Your task to perform on an android device: Add "razer thresher" to the cart on target Image 0: 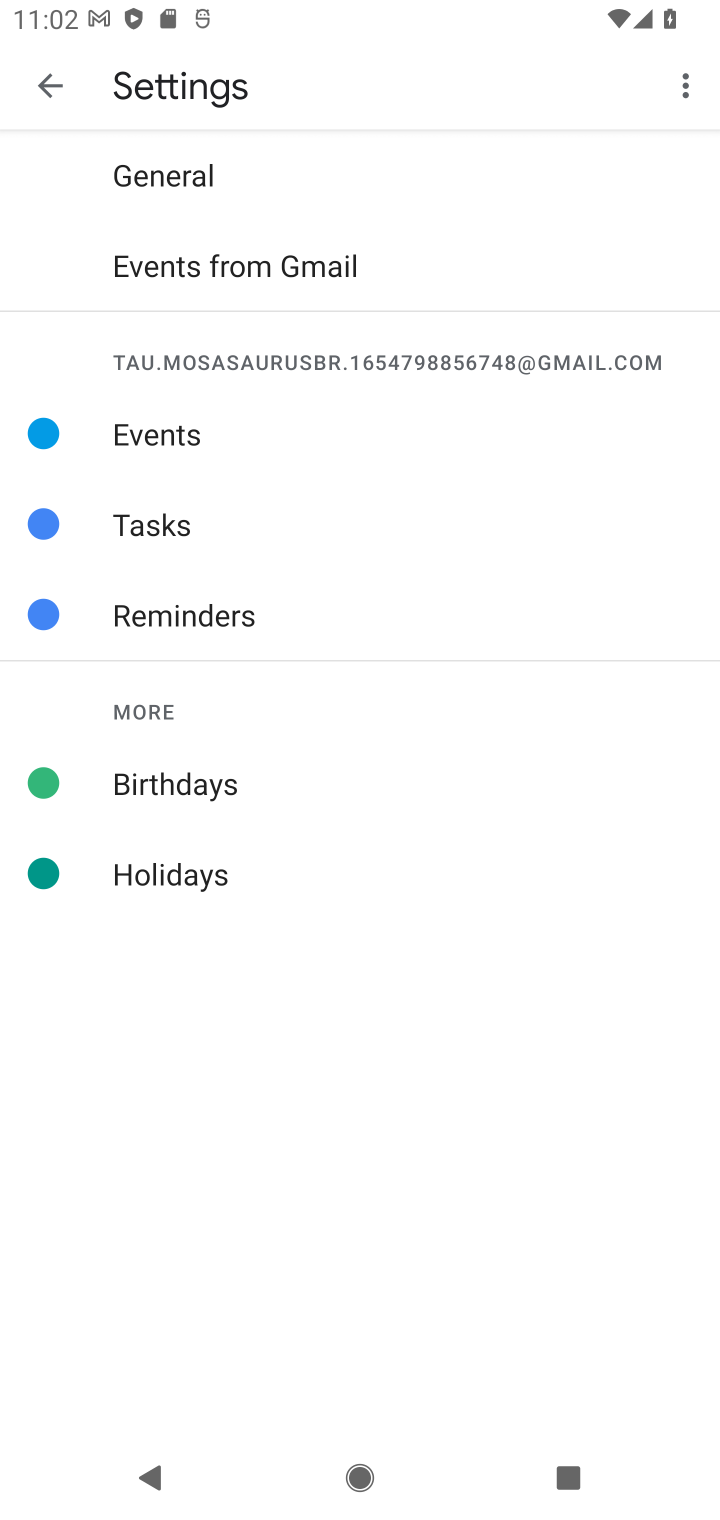
Step 0: press home button
Your task to perform on an android device: Add "razer thresher" to the cart on target Image 1: 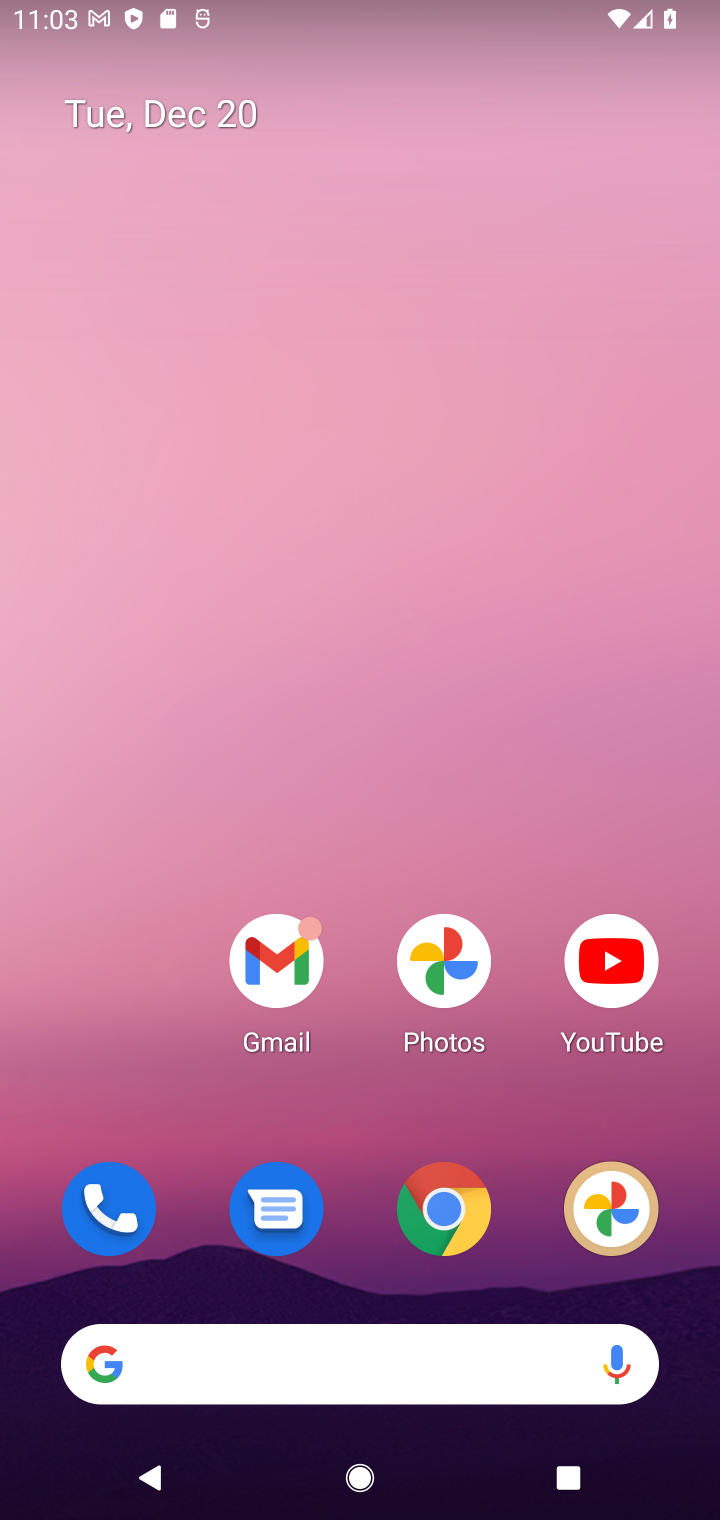
Step 1: click (445, 1219)
Your task to perform on an android device: Add "razer thresher" to the cart on target Image 2: 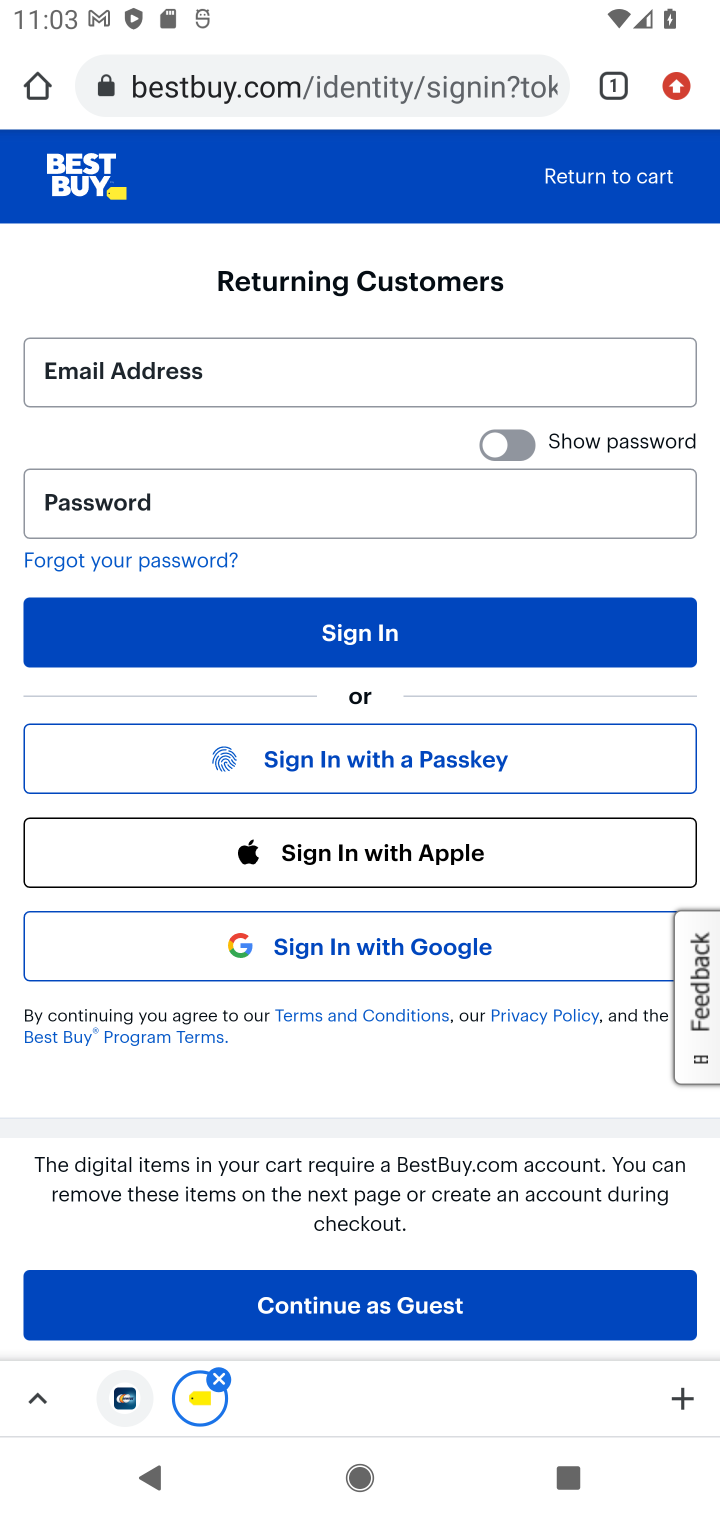
Step 2: click (248, 94)
Your task to perform on an android device: Add "razer thresher" to the cart on target Image 3: 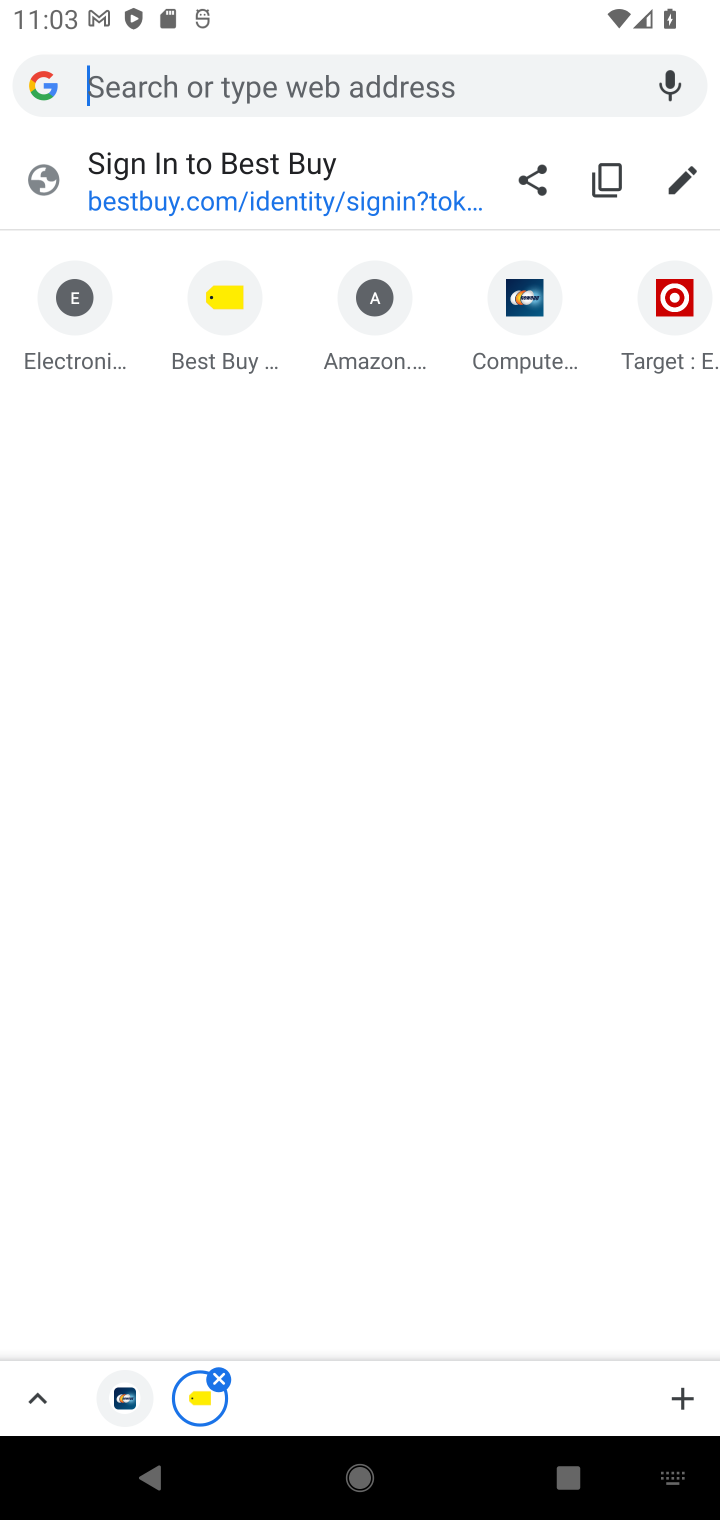
Step 3: click (654, 351)
Your task to perform on an android device: Add "razer thresher" to the cart on target Image 4: 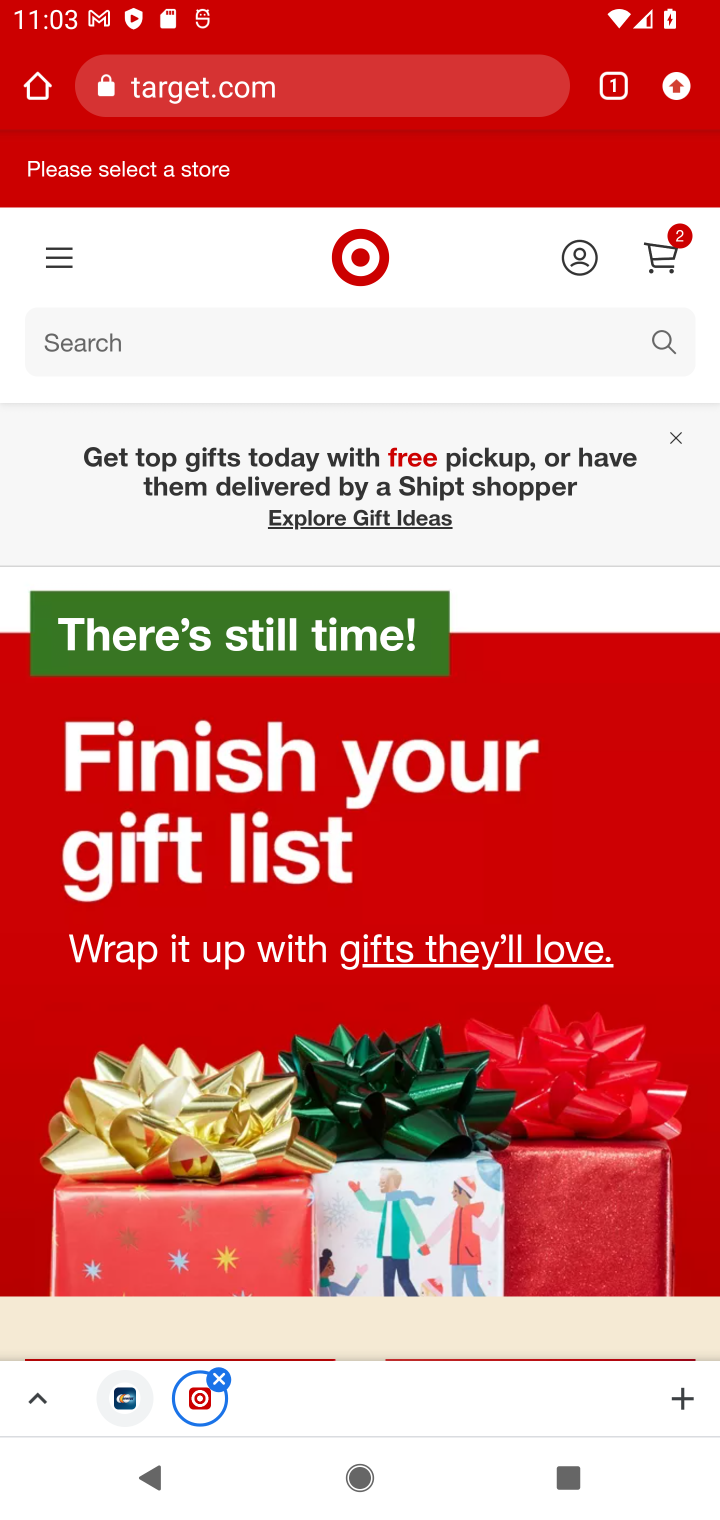
Step 4: click (82, 340)
Your task to perform on an android device: Add "razer thresher" to the cart on target Image 5: 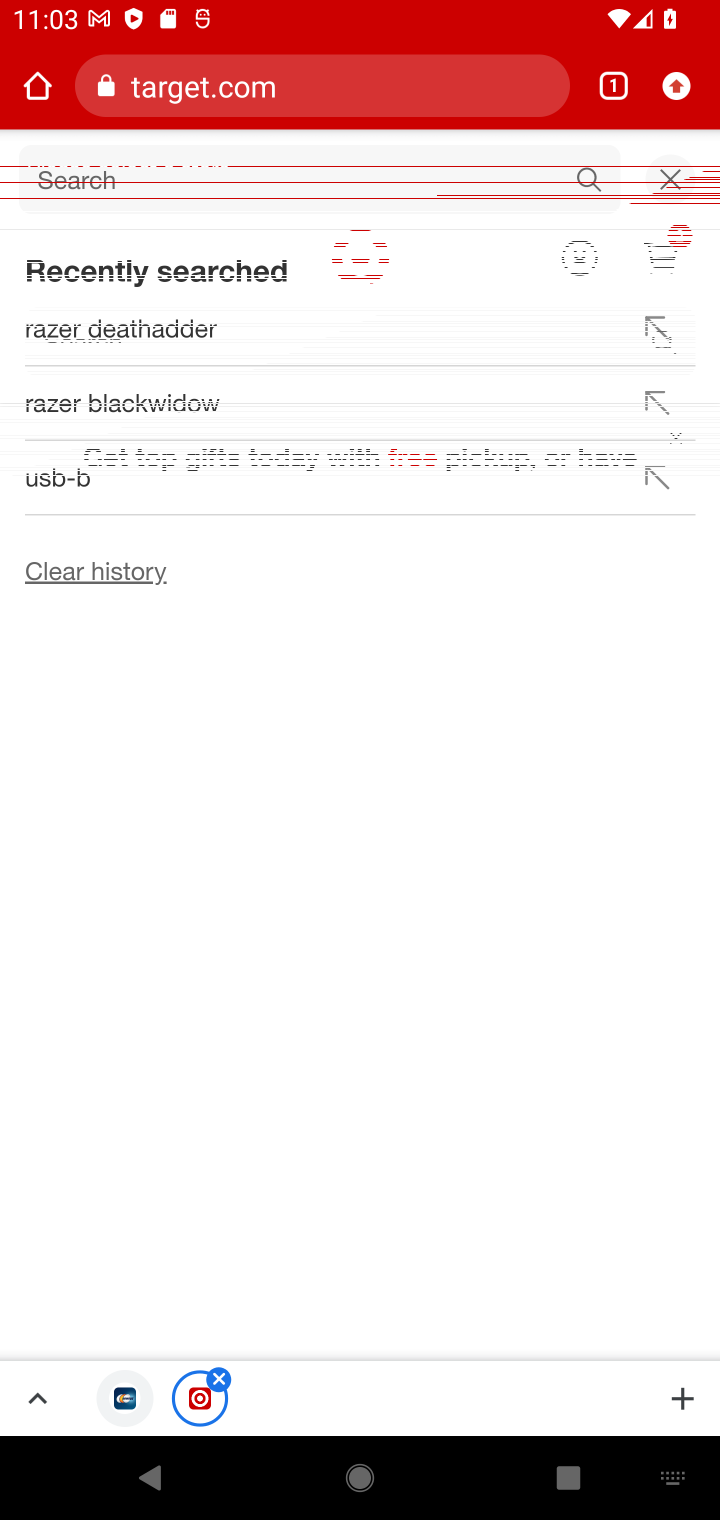
Step 5: type "razer thresher"
Your task to perform on an android device: Add "razer thresher" to the cart on target Image 6: 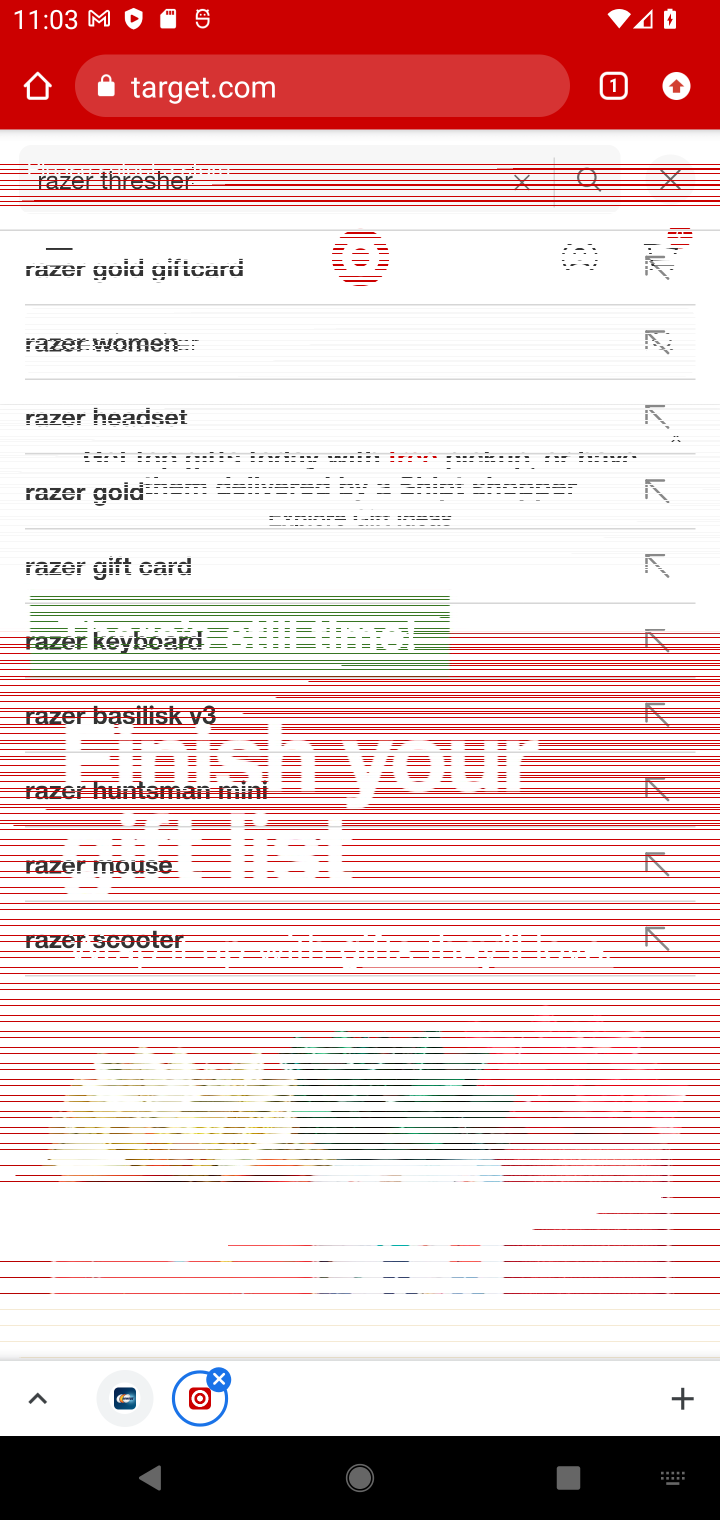
Step 6: click (592, 179)
Your task to perform on an android device: Add "razer thresher" to the cart on target Image 7: 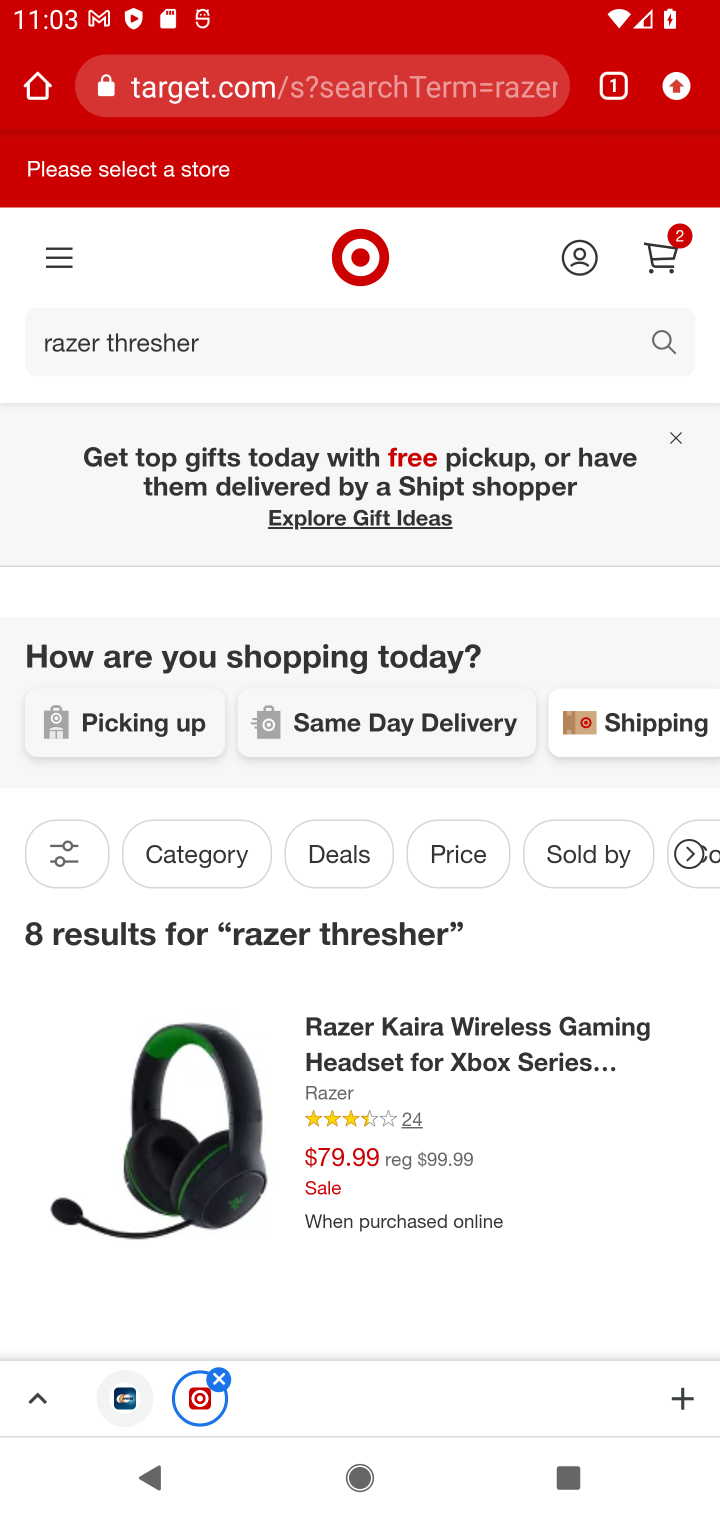
Step 7: task complete